Your task to perform on an android device: open sync settings in chrome Image 0: 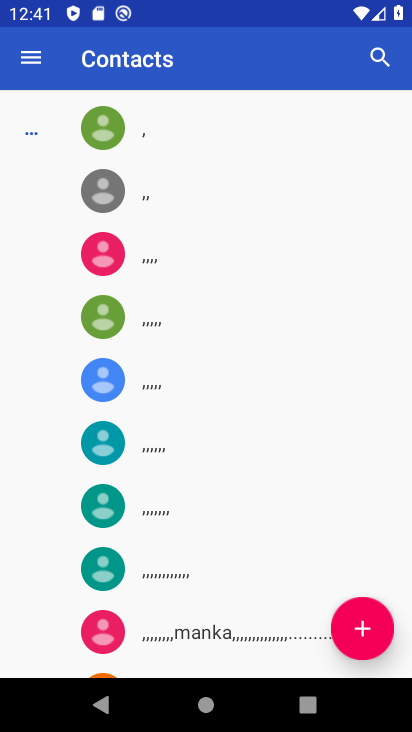
Step 0: press home button
Your task to perform on an android device: open sync settings in chrome Image 1: 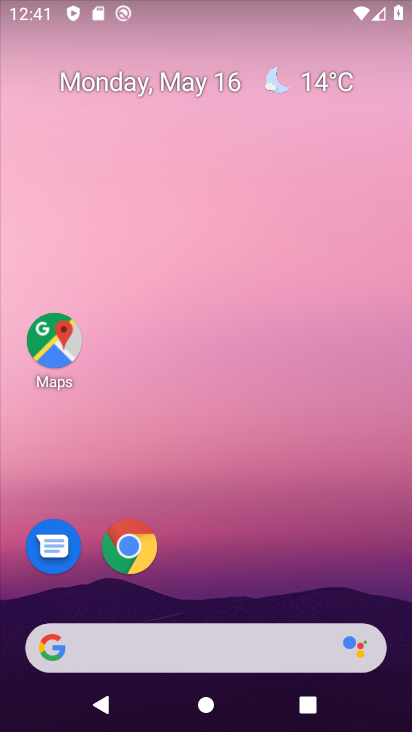
Step 1: drag from (223, 565) to (233, 345)
Your task to perform on an android device: open sync settings in chrome Image 2: 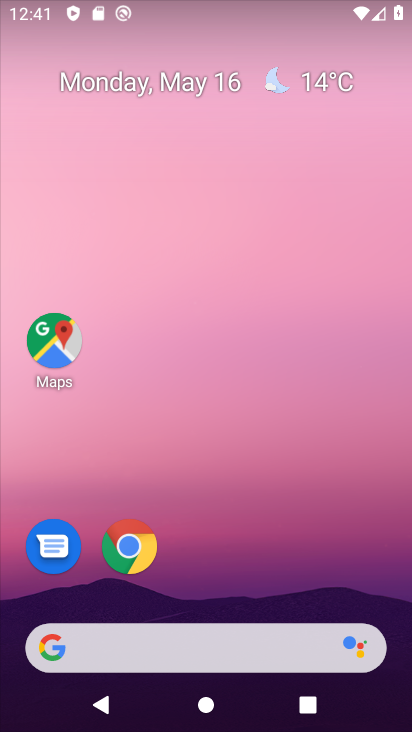
Step 2: drag from (242, 652) to (366, 55)
Your task to perform on an android device: open sync settings in chrome Image 3: 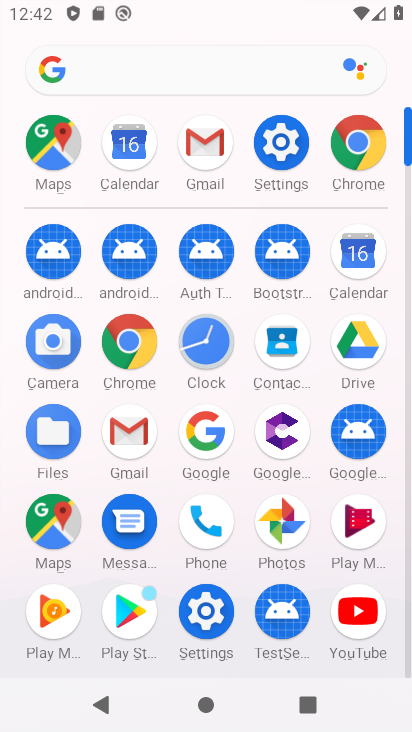
Step 3: click (349, 149)
Your task to perform on an android device: open sync settings in chrome Image 4: 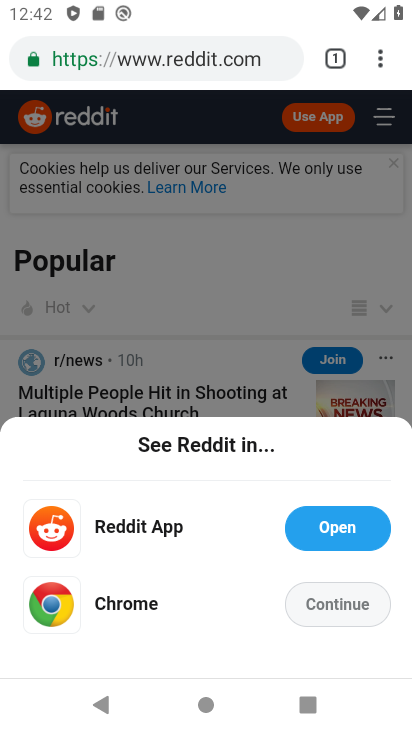
Step 4: click (368, 59)
Your task to perform on an android device: open sync settings in chrome Image 5: 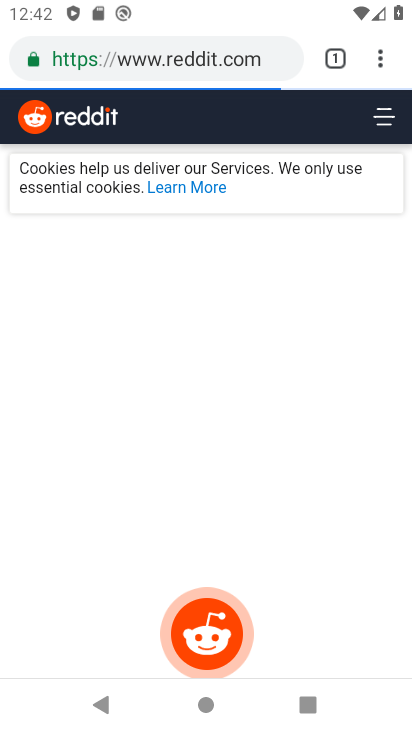
Step 5: click (372, 81)
Your task to perform on an android device: open sync settings in chrome Image 6: 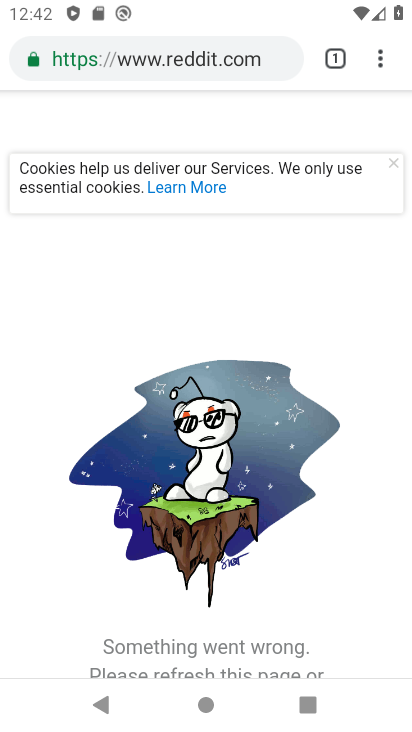
Step 6: click (372, 70)
Your task to perform on an android device: open sync settings in chrome Image 7: 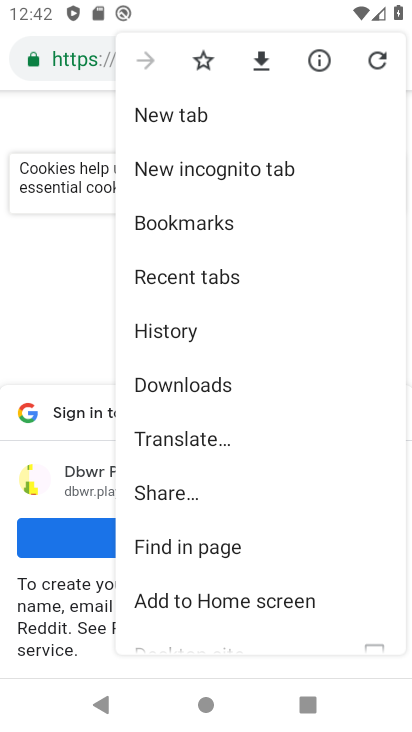
Step 7: drag from (177, 536) to (270, 358)
Your task to perform on an android device: open sync settings in chrome Image 8: 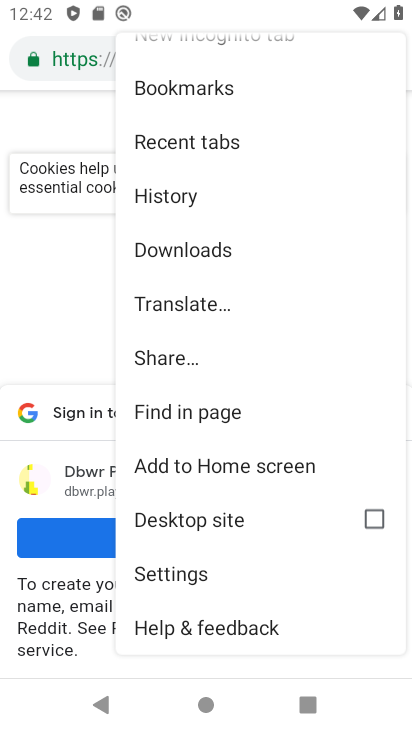
Step 8: click (161, 575)
Your task to perform on an android device: open sync settings in chrome Image 9: 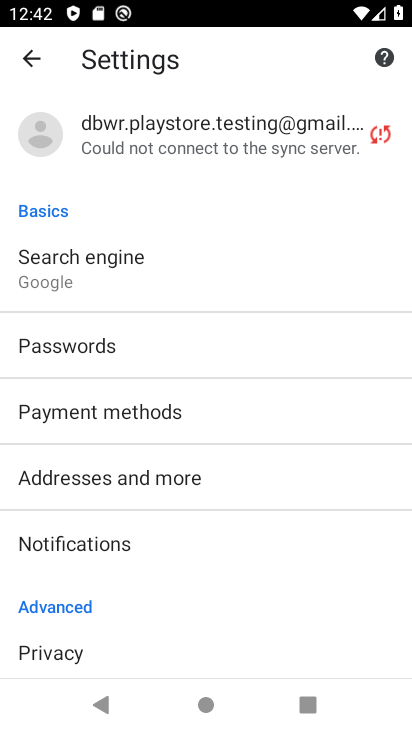
Step 9: drag from (103, 621) to (198, 462)
Your task to perform on an android device: open sync settings in chrome Image 10: 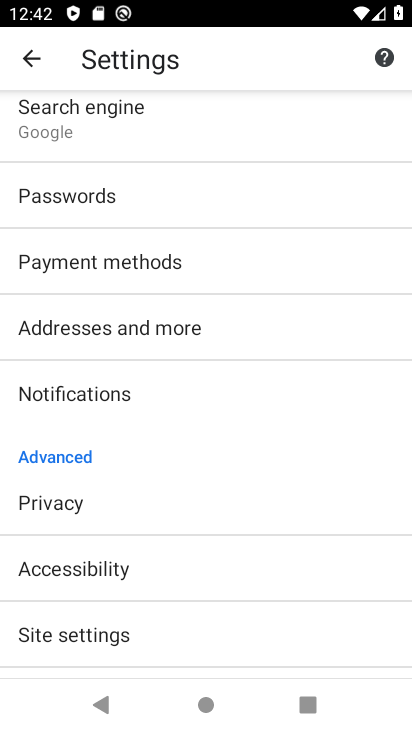
Step 10: click (133, 625)
Your task to perform on an android device: open sync settings in chrome Image 11: 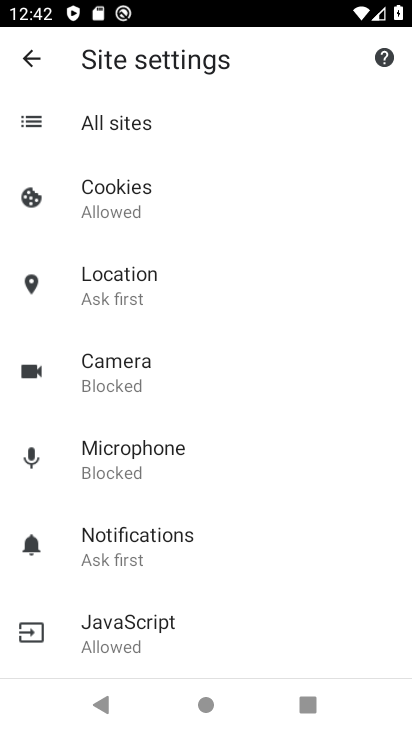
Step 11: drag from (144, 611) to (237, 442)
Your task to perform on an android device: open sync settings in chrome Image 12: 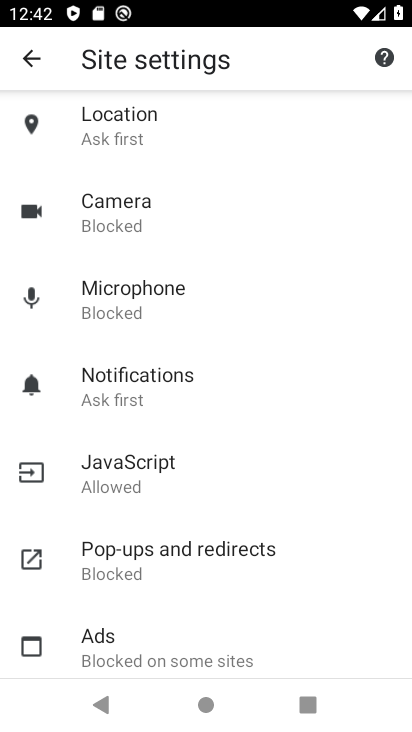
Step 12: drag from (158, 599) to (219, 417)
Your task to perform on an android device: open sync settings in chrome Image 13: 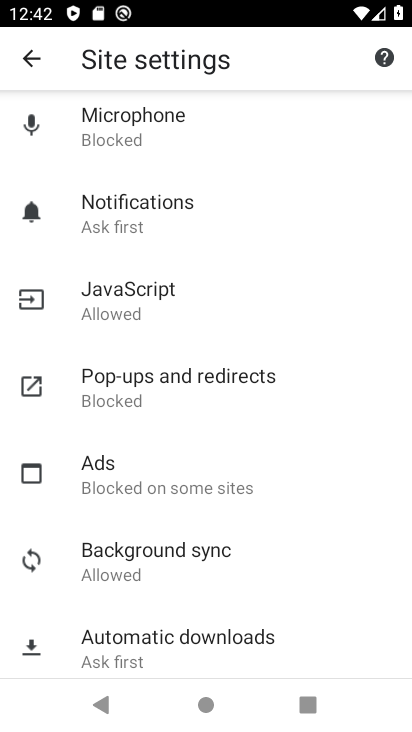
Step 13: click (153, 561)
Your task to perform on an android device: open sync settings in chrome Image 14: 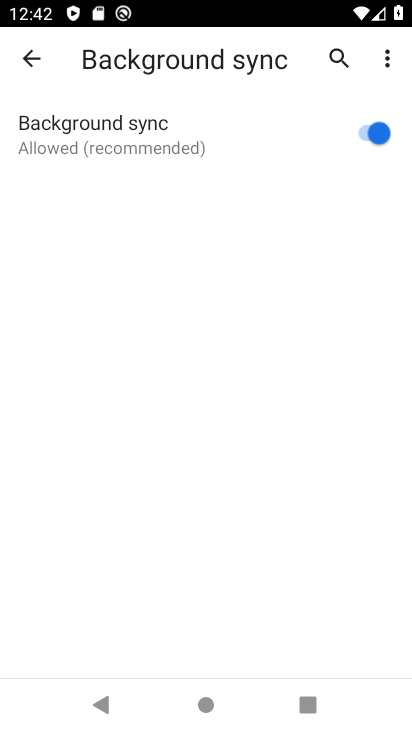
Step 14: task complete